Your task to perform on an android device: Turn off the flashlight Image 0: 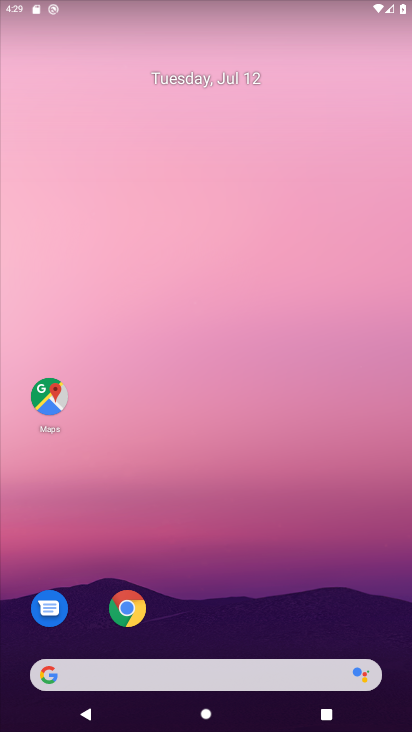
Step 0: drag from (193, 635) to (132, 130)
Your task to perform on an android device: Turn off the flashlight Image 1: 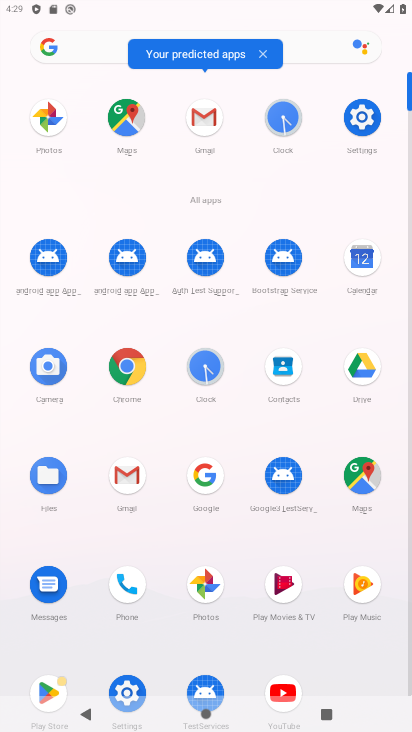
Step 1: click (355, 118)
Your task to perform on an android device: Turn off the flashlight Image 2: 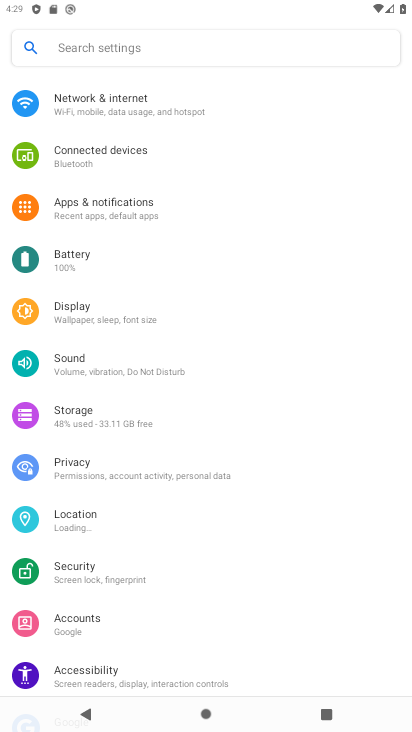
Step 2: task complete